Your task to perform on an android device: What's on my calendar today? Image 0: 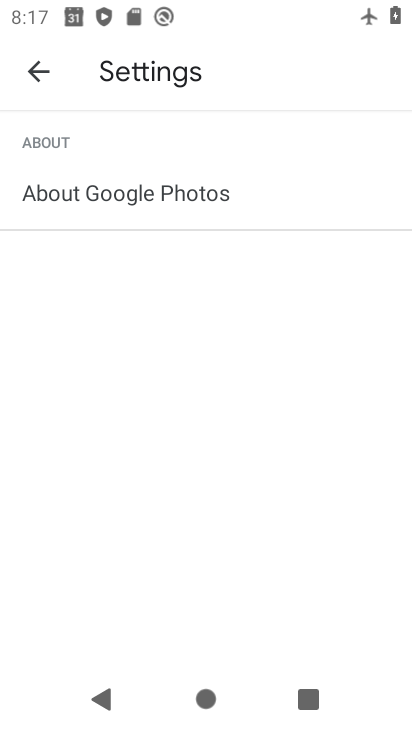
Step 0: press home button
Your task to perform on an android device: What's on my calendar today? Image 1: 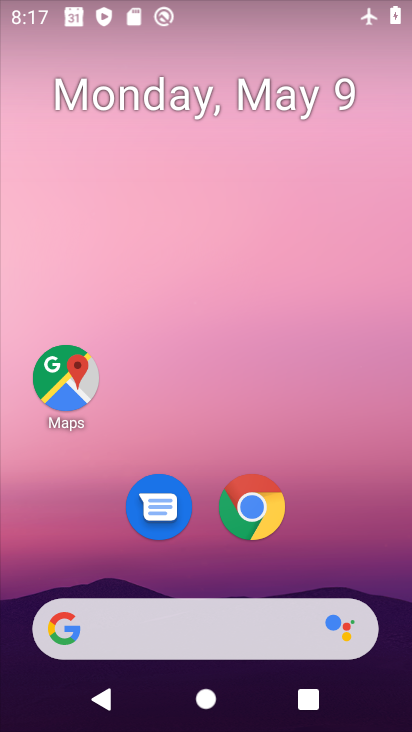
Step 1: drag from (223, 590) to (297, 63)
Your task to perform on an android device: What's on my calendar today? Image 2: 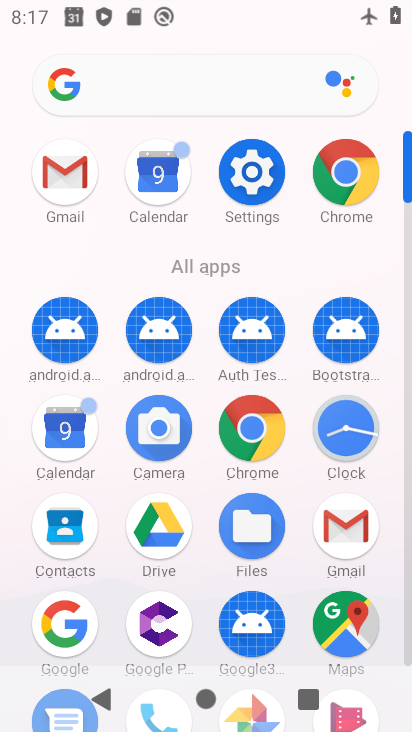
Step 2: click (64, 422)
Your task to perform on an android device: What's on my calendar today? Image 3: 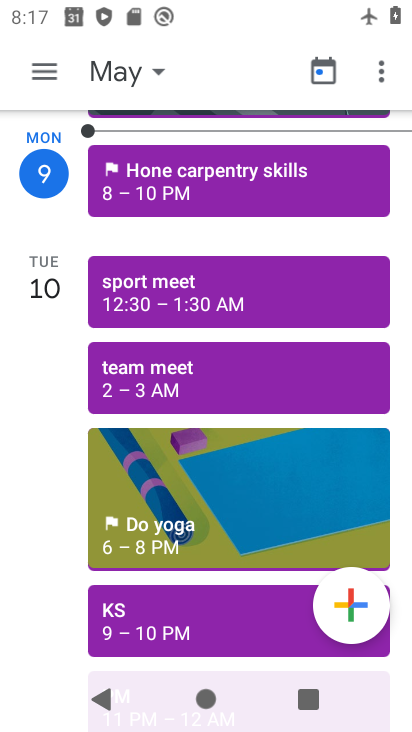
Step 3: click (42, 186)
Your task to perform on an android device: What's on my calendar today? Image 4: 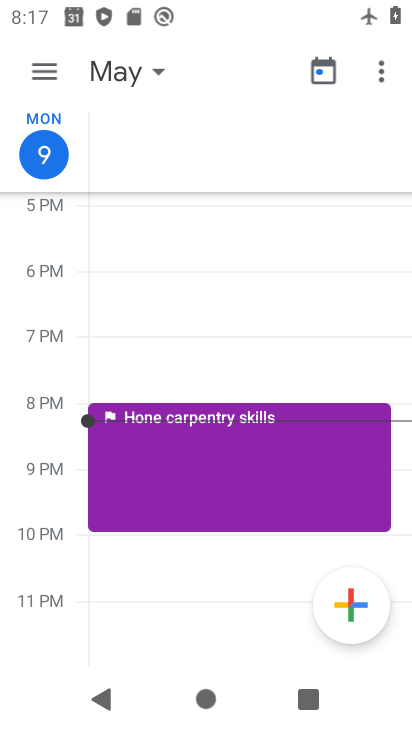
Step 4: task complete